Your task to perform on an android device: Open eBay Image 0: 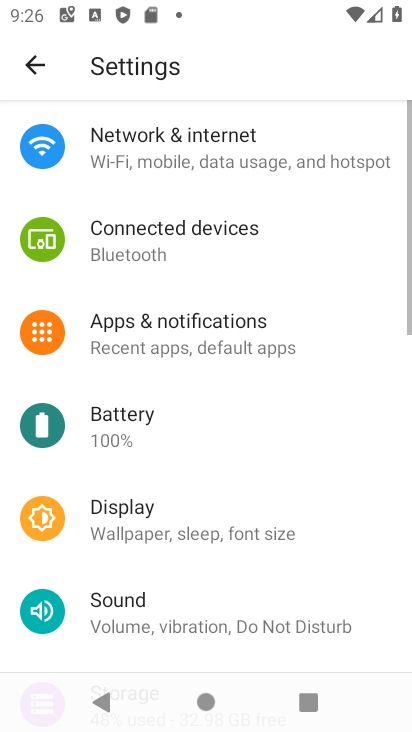
Step 0: press home button
Your task to perform on an android device: Open eBay Image 1: 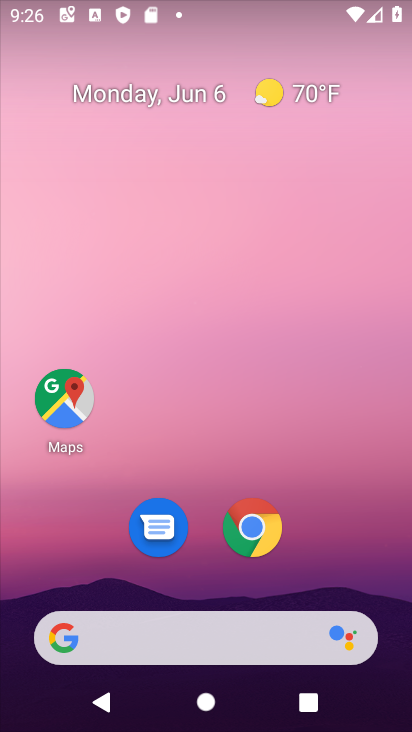
Step 1: drag from (248, 591) to (336, 37)
Your task to perform on an android device: Open eBay Image 2: 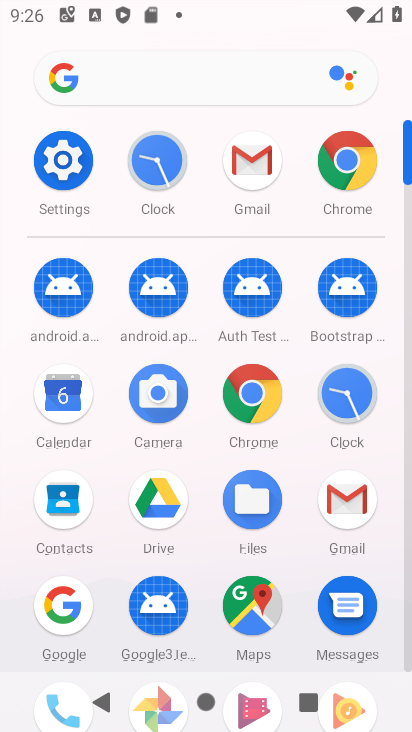
Step 2: click (355, 202)
Your task to perform on an android device: Open eBay Image 3: 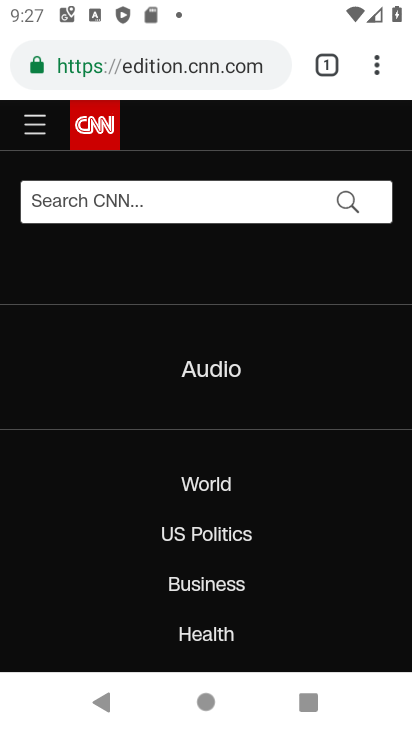
Step 3: click (207, 64)
Your task to perform on an android device: Open eBay Image 4: 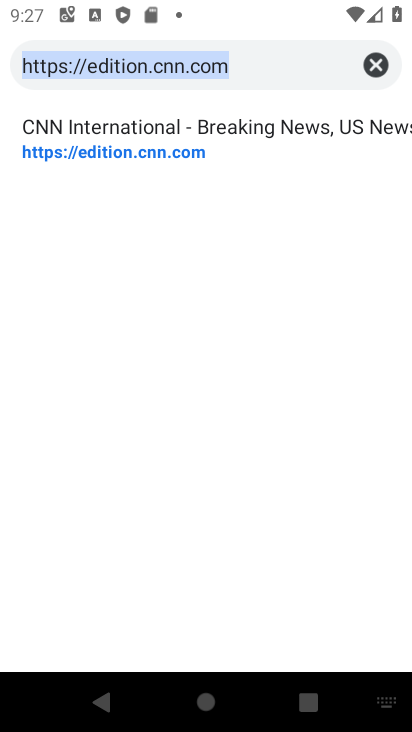
Step 4: type "ebay"
Your task to perform on an android device: Open eBay Image 5: 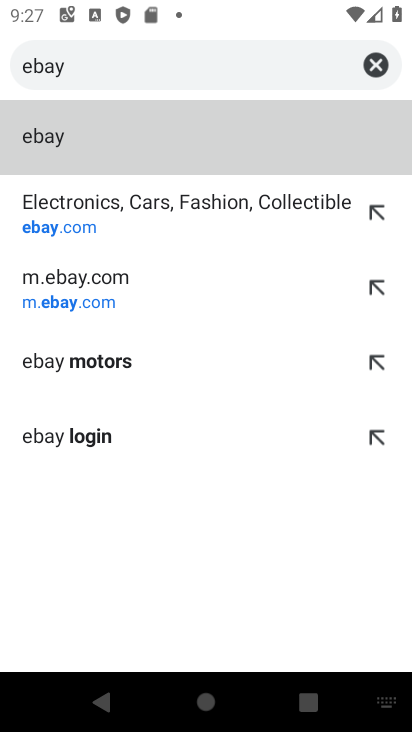
Step 5: click (222, 204)
Your task to perform on an android device: Open eBay Image 6: 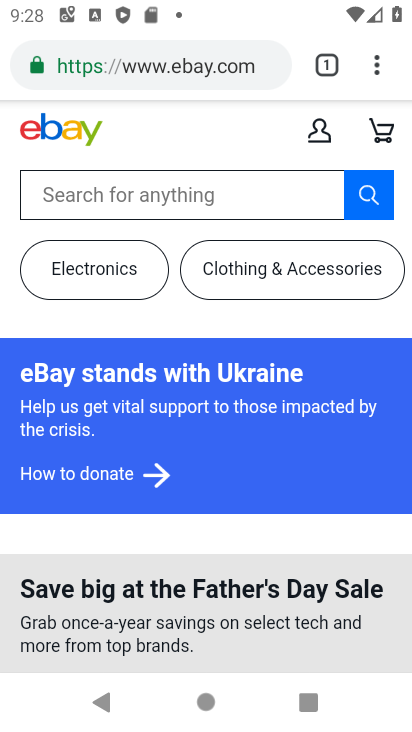
Step 6: task complete